Your task to perform on an android device: Open internet settings Image 0: 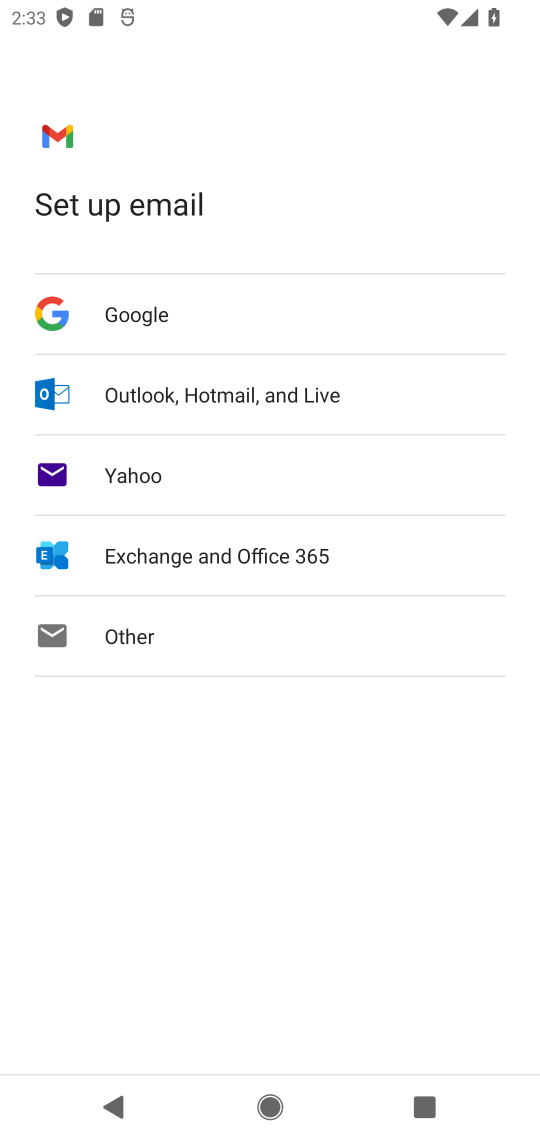
Step 0: press home button
Your task to perform on an android device: Open internet settings Image 1: 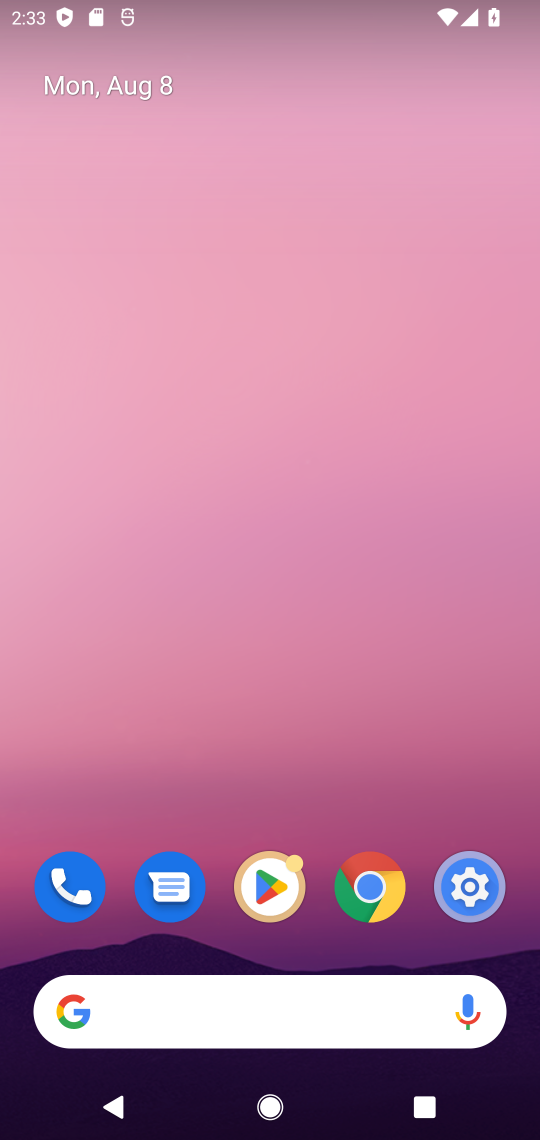
Step 1: click (484, 898)
Your task to perform on an android device: Open internet settings Image 2: 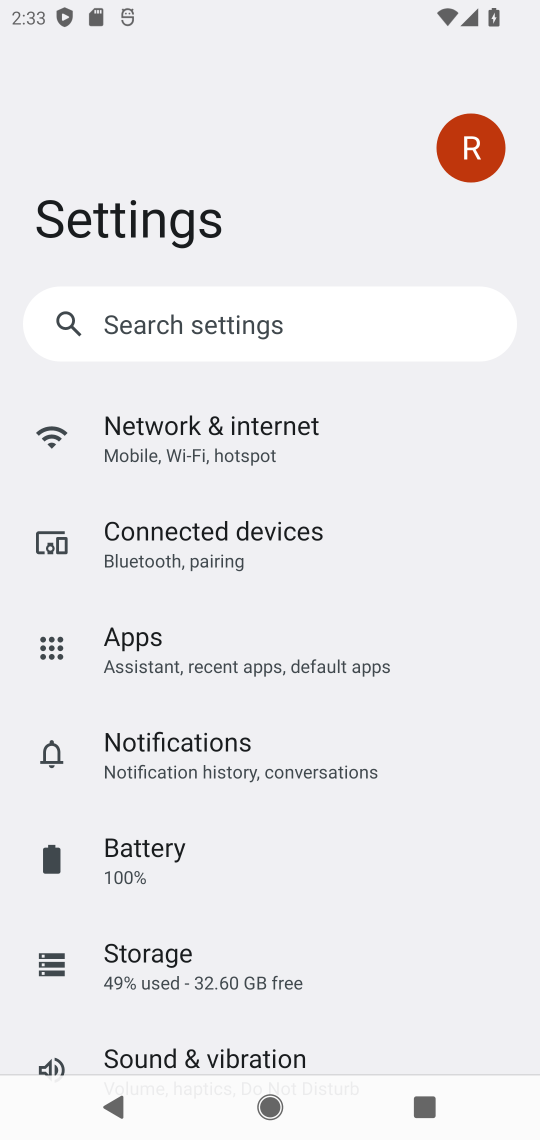
Step 2: click (273, 445)
Your task to perform on an android device: Open internet settings Image 3: 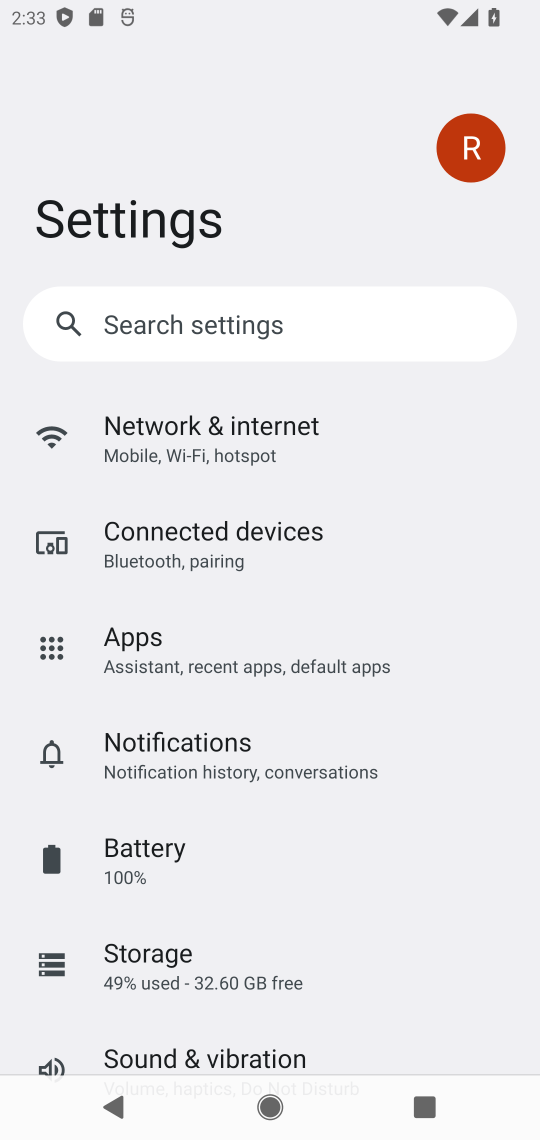
Step 3: click (273, 445)
Your task to perform on an android device: Open internet settings Image 4: 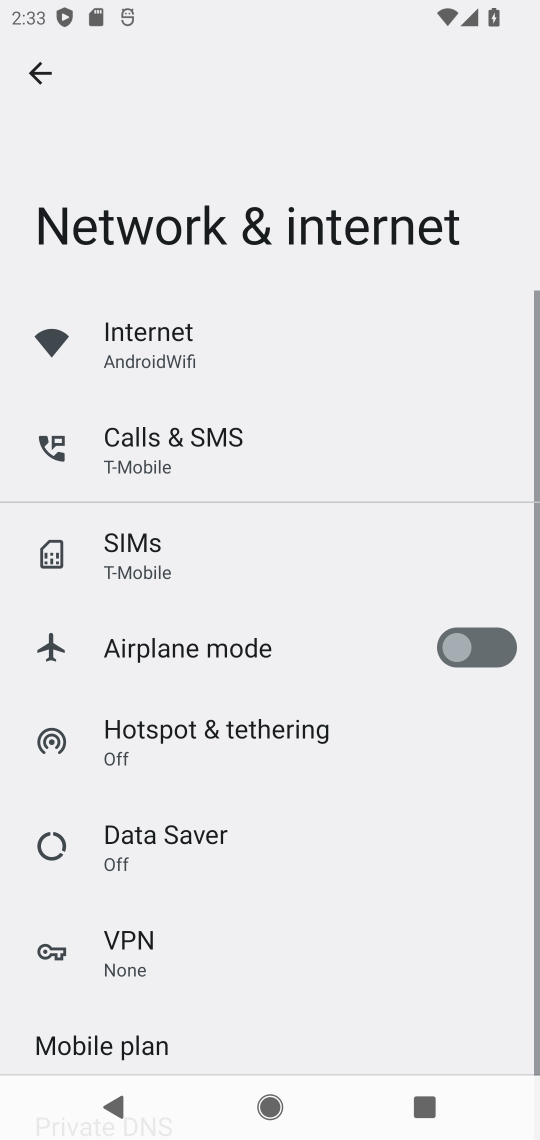
Step 4: task complete